Your task to perform on an android device: turn on improve location accuracy Image 0: 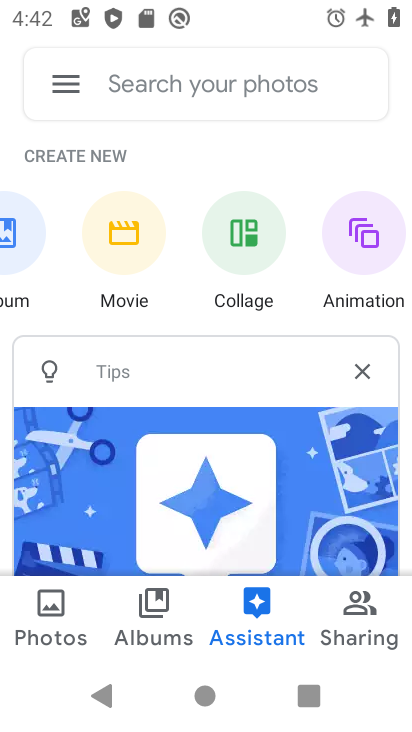
Step 0: press home button
Your task to perform on an android device: turn on improve location accuracy Image 1: 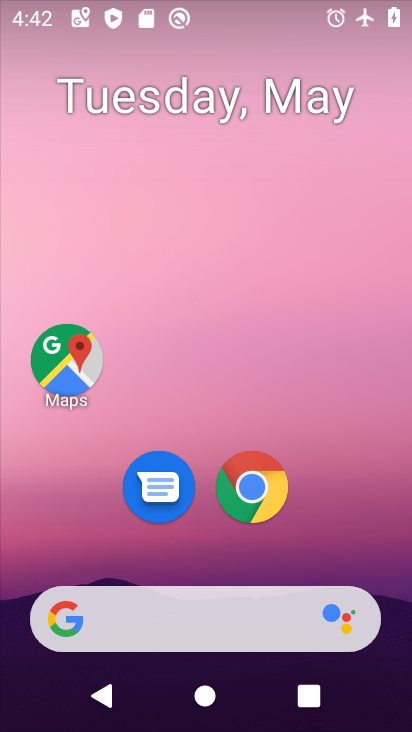
Step 1: drag from (359, 506) to (236, 5)
Your task to perform on an android device: turn on improve location accuracy Image 2: 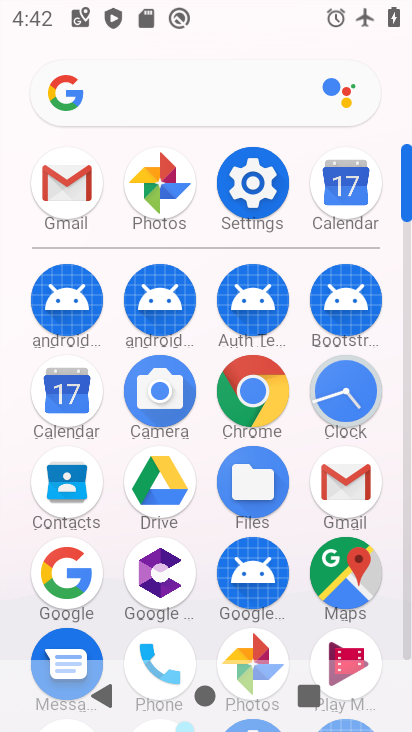
Step 2: click (265, 181)
Your task to perform on an android device: turn on improve location accuracy Image 3: 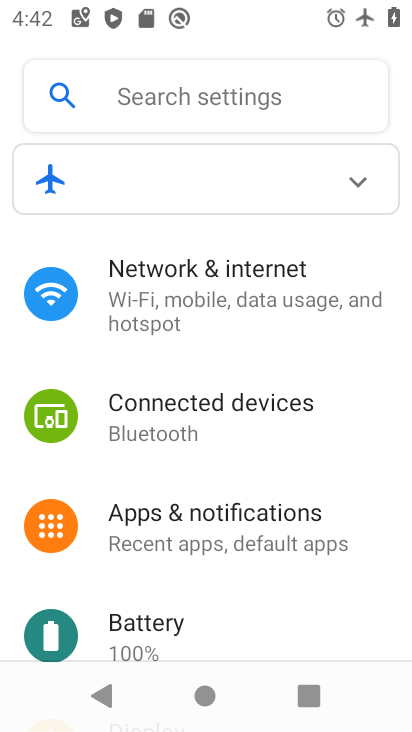
Step 3: drag from (262, 552) to (311, 112)
Your task to perform on an android device: turn on improve location accuracy Image 4: 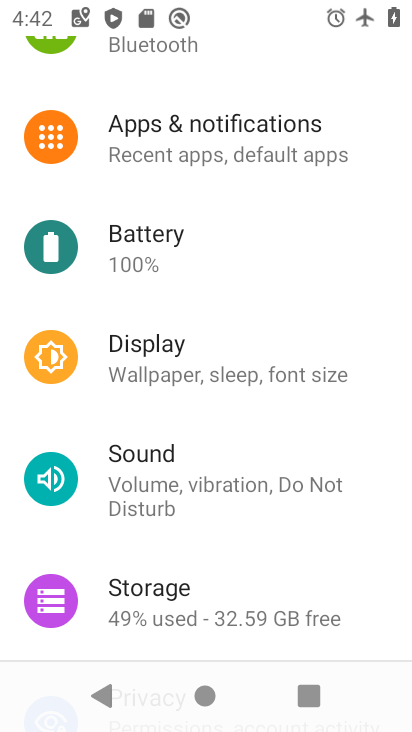
Step 4: drag from (224, 506) to (299, 188)
Your task to perform on an android device: turn on improve location accuracy Image 5: 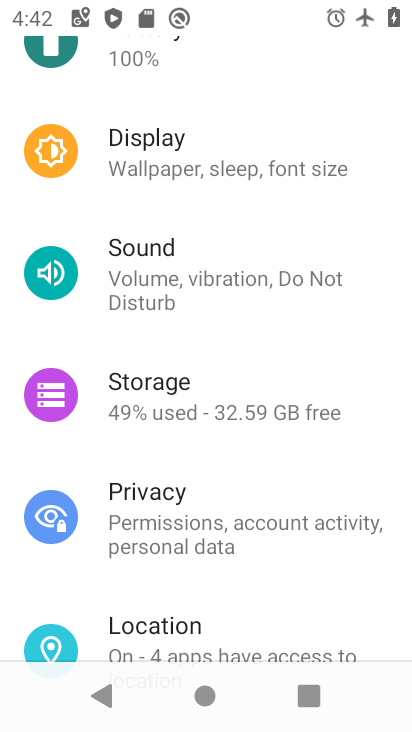
Step 5: click (299, 182)
Your task to perform on an android device: turn on improve location accuracy Image 6: 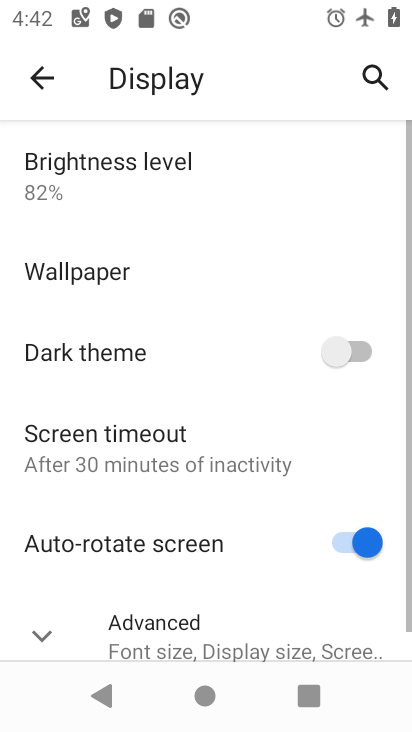
Step 6: drag from (220, 523) to (290, 224)
Your task to perform on an android device: turn on improve location accuracy Image 7: 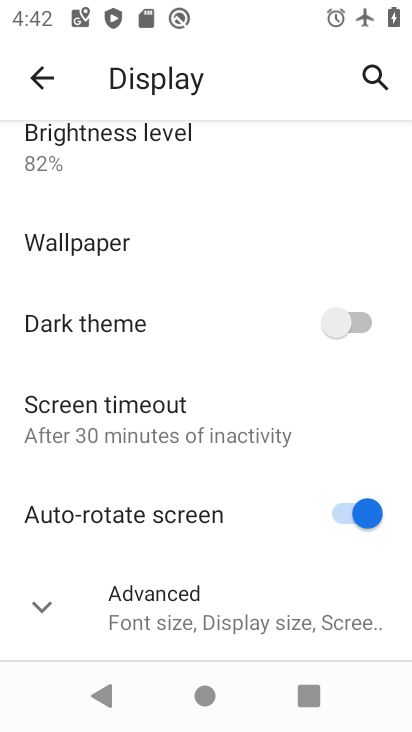
Step 7: click (44, 88)
Your task to perform on an android device: turn on improve location accuracy Image 8: 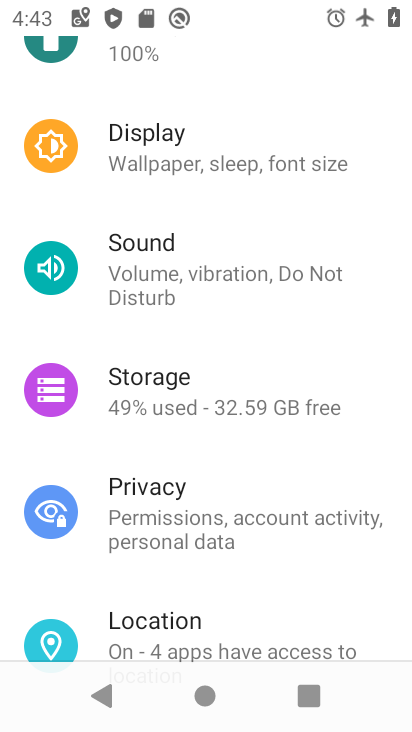
Step 8: drag from (260, 557) to (374, 161)
Your task to perform on an android device: turn on improve location accuracy Image 9: 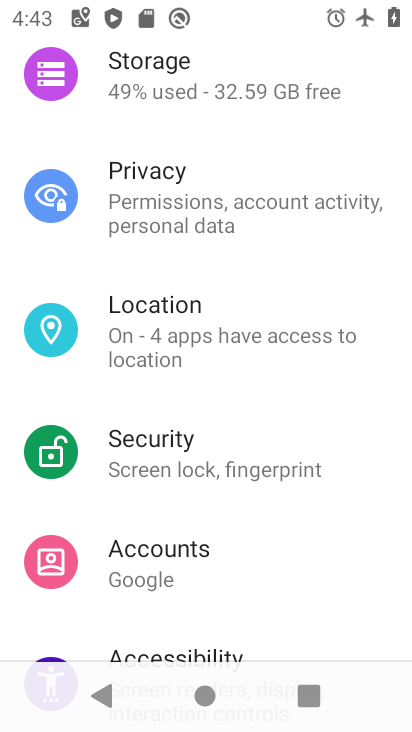
Step 9: click (239, 343)
Your task to perform on an android device: turn on improve location accuracy Image 10: 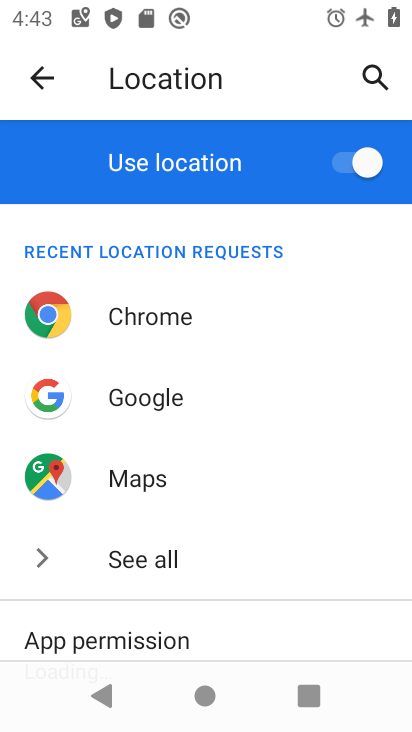
Step 10: drag from (250, 596) to (292, 199)
Your task to perform on an android device: turn on improve location accuracy Image 11: 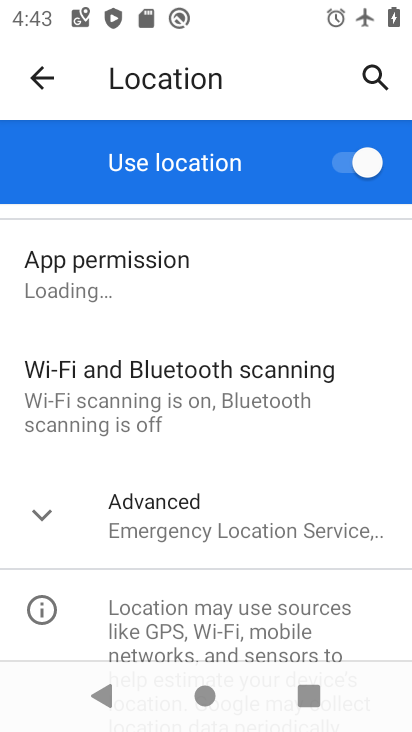
Step 11: drag from (230, 575) to (342, 259)
Your task to perform on an android device: turn on improve location accuracy Image 12: 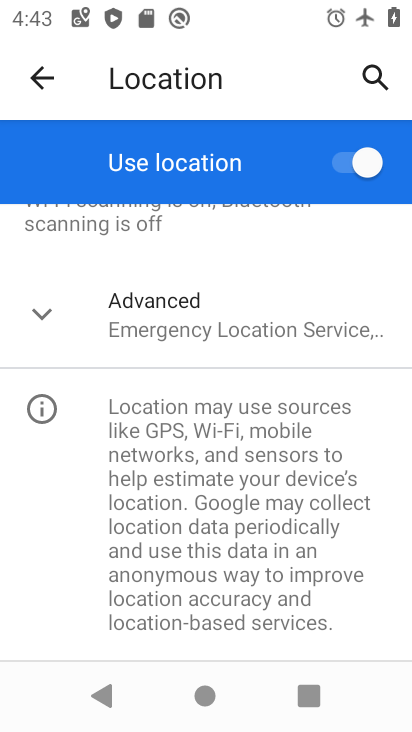
Step 12: click (190, 337)
Your task to perform on an android device: turn on improve location accuracy Image 13: 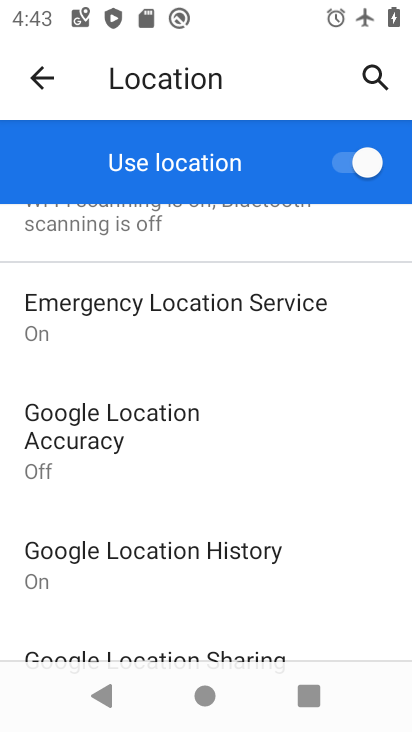
Step 13: drag from (234, 534) to (360, 227)
Your task to perform on an android device: turn on improve location accuracy Image 14: 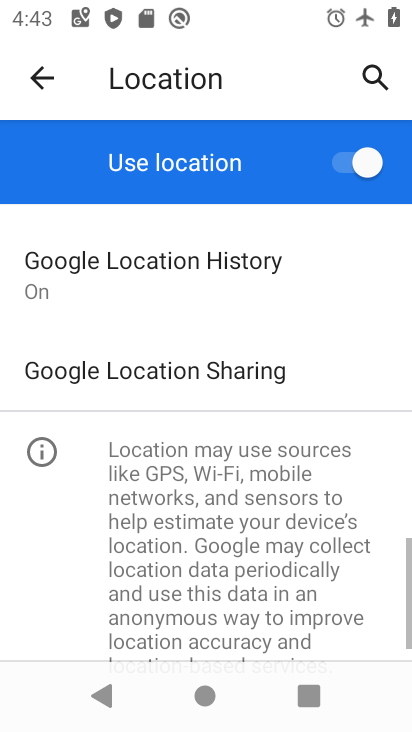
Step 14: drag from (256, 360) to (186, 631)
Your task to perform on an android device: turn on improve location accuracy Image 15: 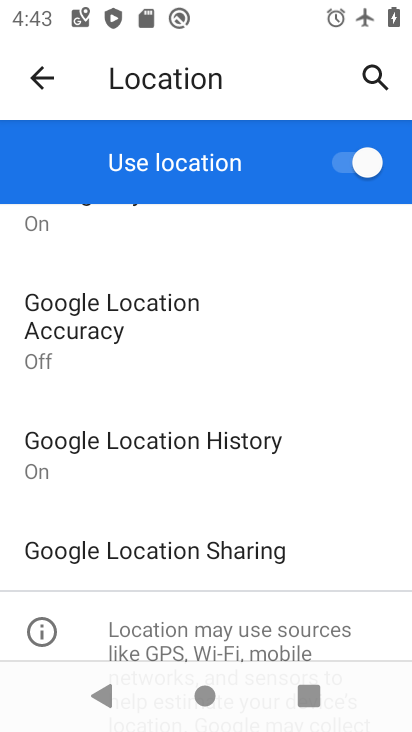
Step 15: click (151, 304)
Your task to perform on an android device: turn on improve location accuracy Image 16: 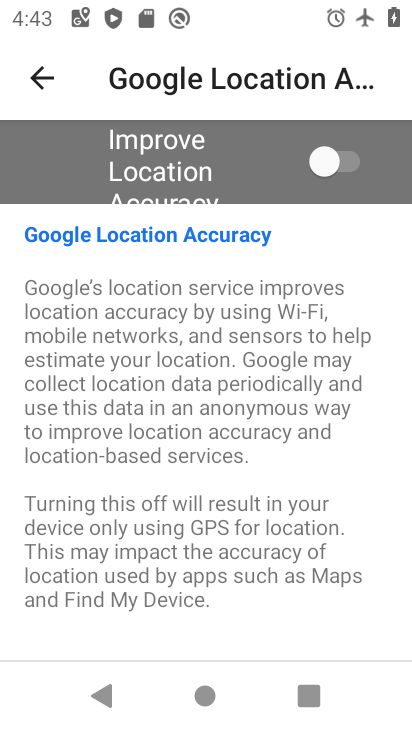
Step 16: click (341, 143)
Your task to perform on an android device: turn on improve location accuracy Image 17: 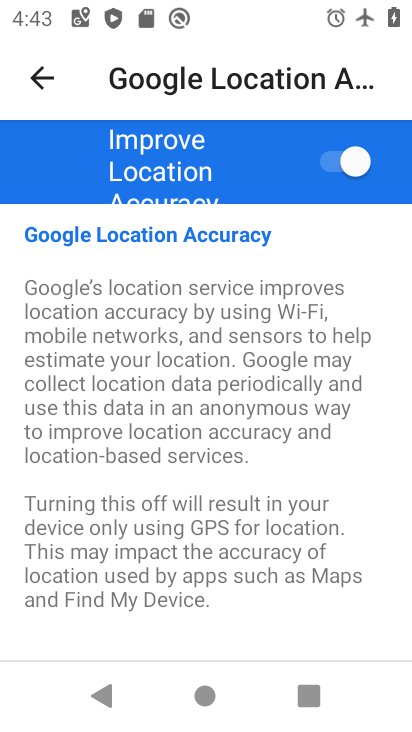
Step 17: task complete